Your task to perform on an android device: turn on translation in the chrome app Image 0: 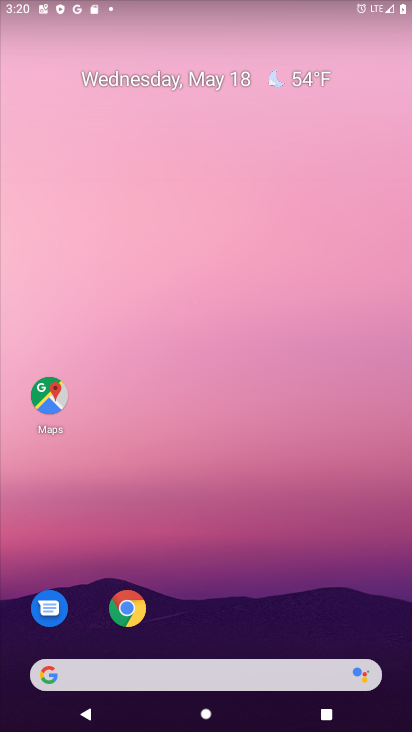
Step 0: click (137, 608)
Your task to perform on an android device: turn on translation in the chrome app Image 1: 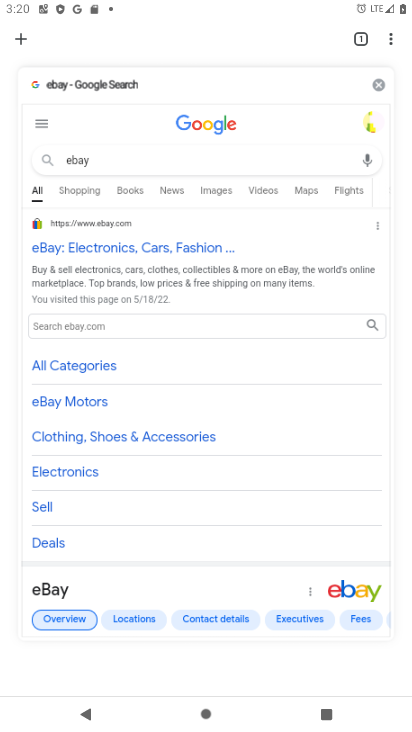
Step 1: click (393, 38)
Your task to perform on an android device: turn on translation in the chrome app Image 2: 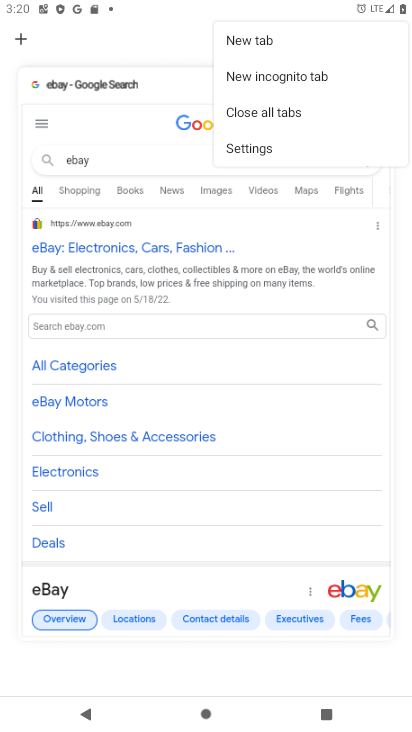
Step 2: click (248, 152)
Your task to perform on an android device: turn on translation in the chrome app Image 3: 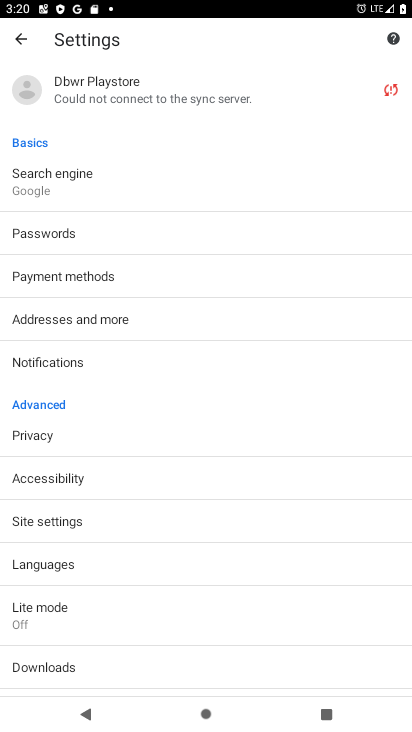
Step 3: click (36, 566)
Your task to perform on an android device: turn on translation in the chrome app Image 4: 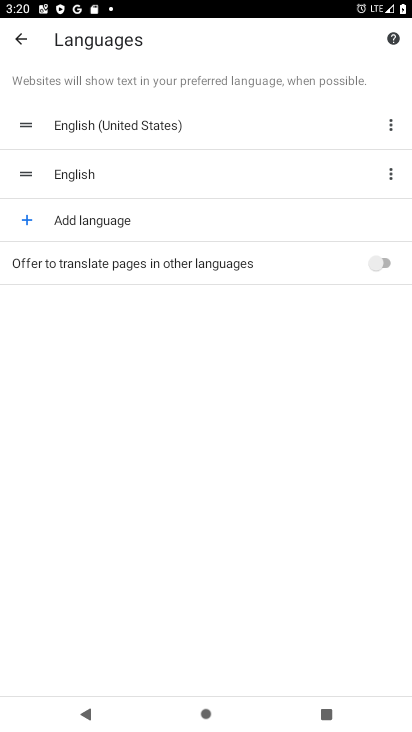
Step 4: click (375, 268)
Your task to perform on an android device: turn on translation in the chrome app Image 5: 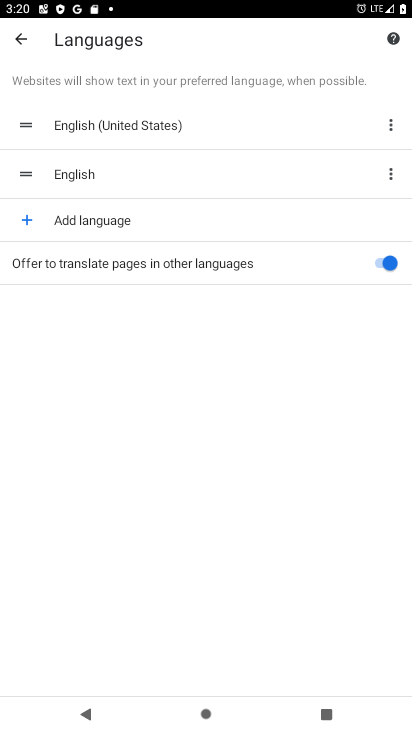
Step 5: task complete